Your task to perform on an android device: find which apps use the phone's location Image 0: 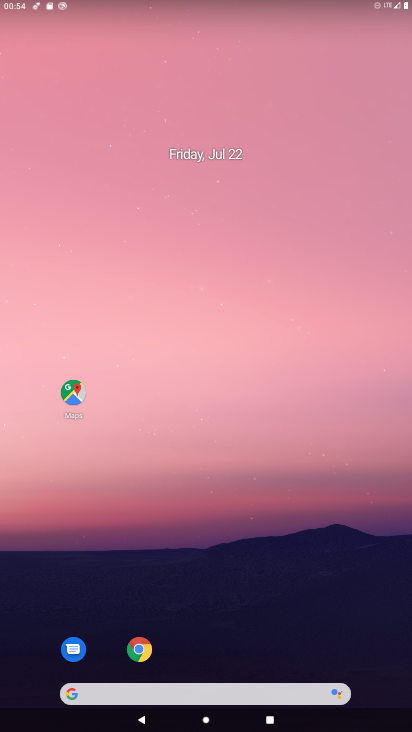
Step 0: drag from (223, 703) to (225, 270)
Your task to perform on an android device: find which apps use the phone's location Image 1: 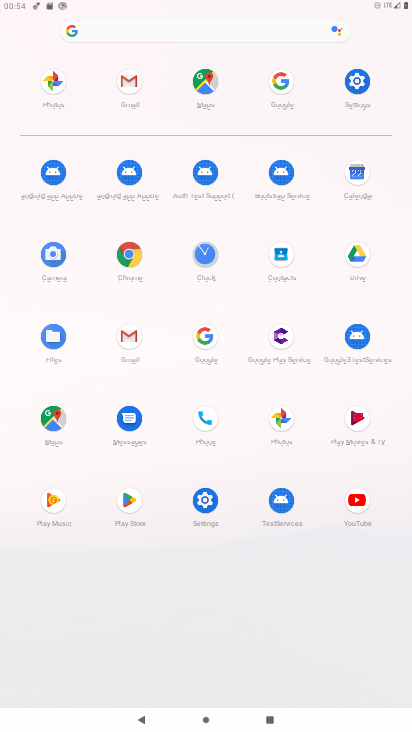
Step 1: click (355, 75)
Your task to perform on an android device: find which apps use the phone's location Image 2: 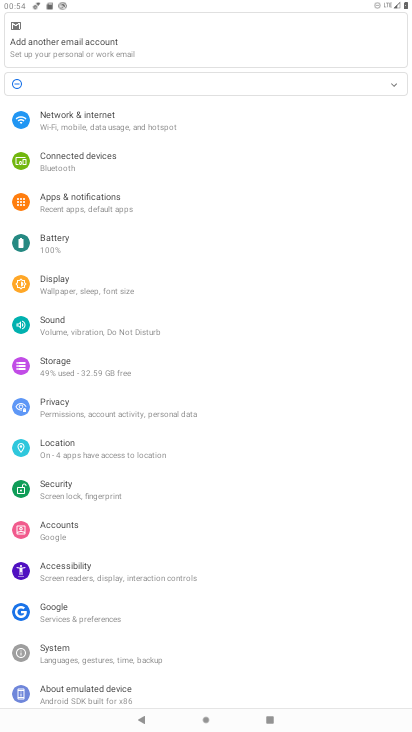
Step 2: click (72, 447)
Your task to perform on an android device: find which apps use the phone's location Image 3: 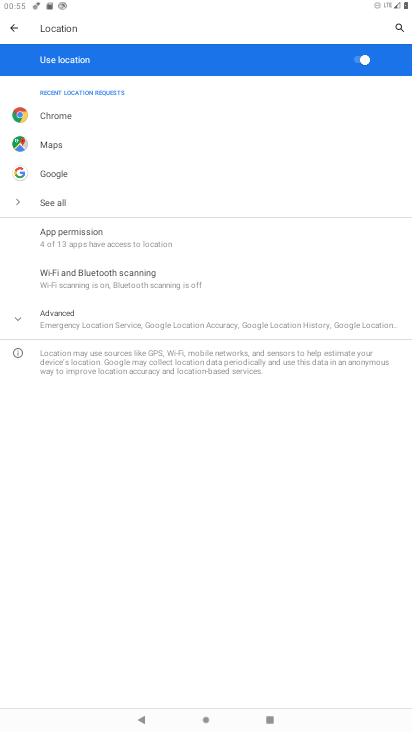
Step 3: click (75, 237)
Your task to perform on an android device: find which apps use the phone's location Image 4: 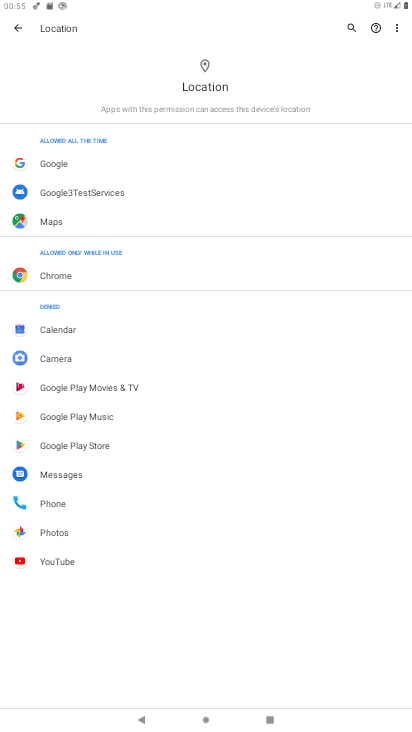
Step 4: task complete